Your task to perform on an android device: turn notification dots off Image 0: 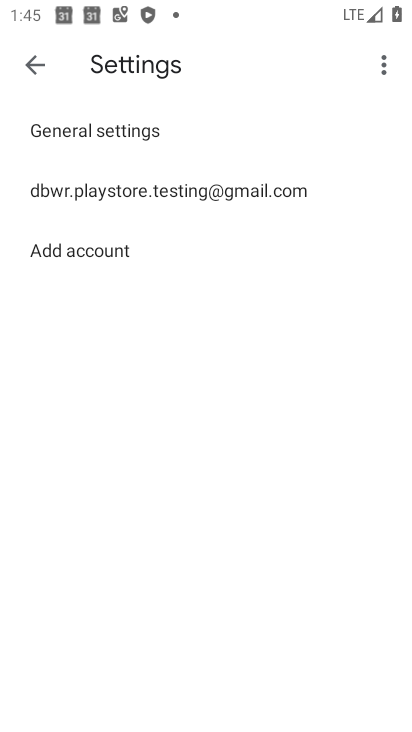
Step 0: press home button
Your task to perform on an android device: turn notification dots off Image 1: 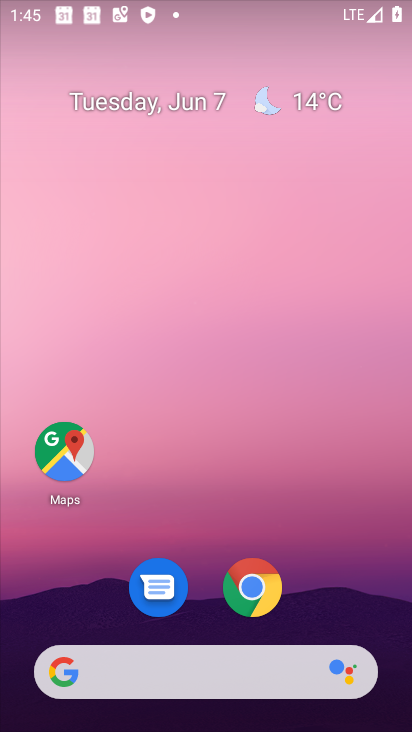
Step 1: drag from (247, 648) to (202, 210)
Your task to perform on an android device: turn notification dots off Image 2: 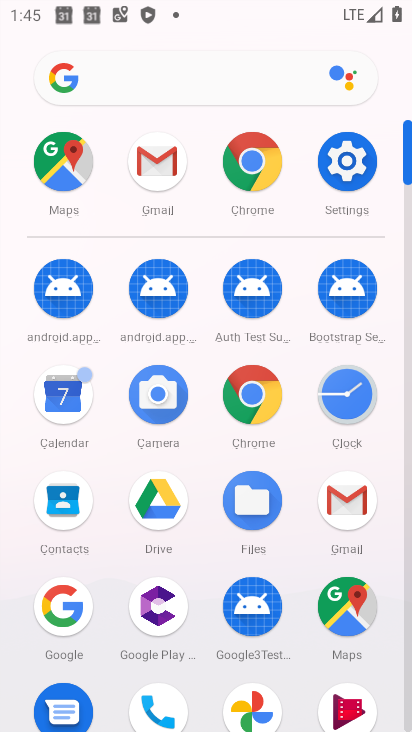
Step 2: click (353, 161)
Your task to perform on an android device: turn notification dots off Image 3: 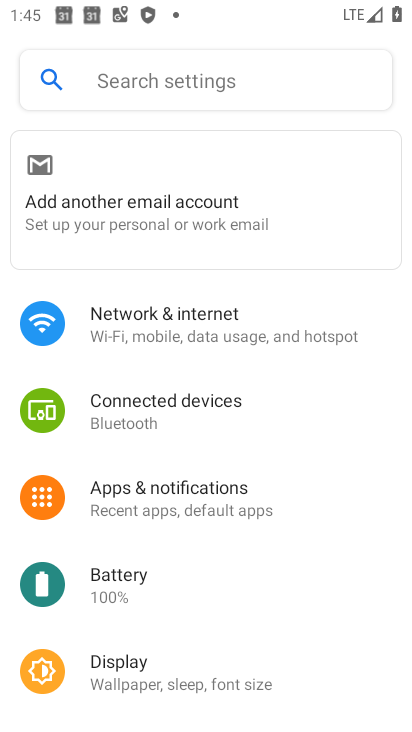
Step 3: click (294, 499)
Your task to perform on an android device: turn notification dots off Image 4: 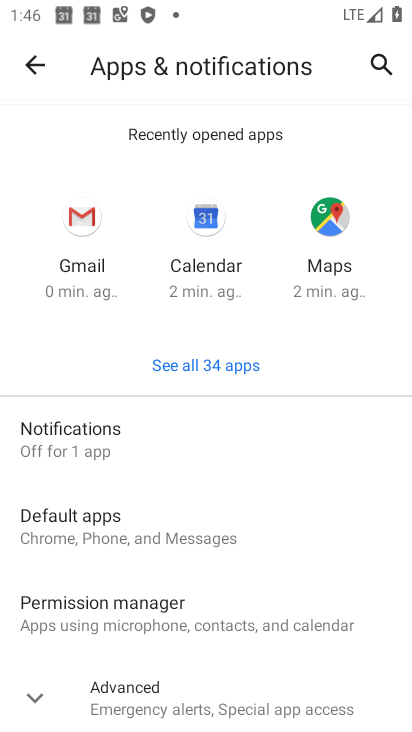
Step 4: click (197, 435)
Your task to perform on an android device: turn notification dots off Image 5: 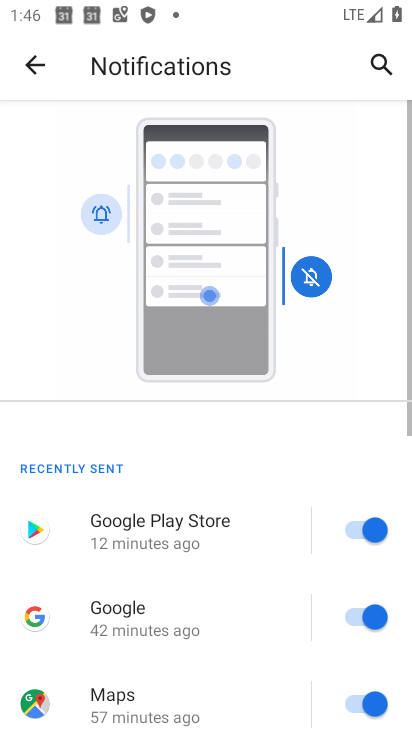
Step 5: drag from (202, 582) to (194, 151)
Your task to perform on an android device: turn notification dots off Image 6: 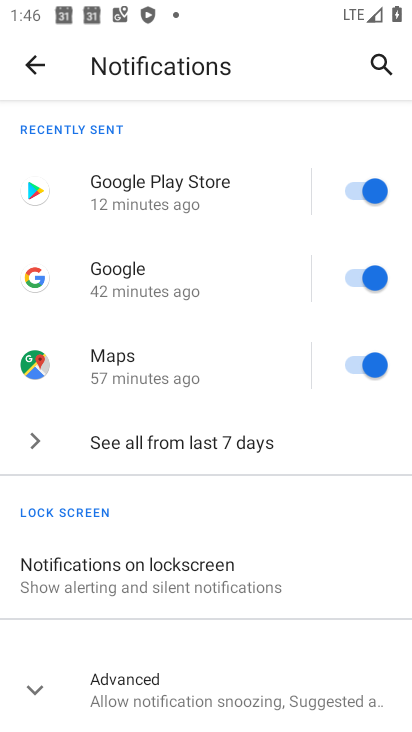
Step 6: click (165, 685)
Your task to perform on an android device: turn notification dots off Image 7: 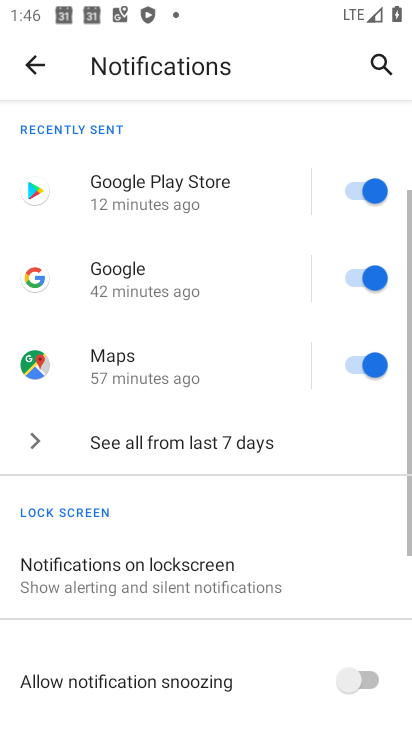
Step 7: drag from (170, 651) to (210, 265)
Your task to perform on an android device: turn notification dots off Image 8: 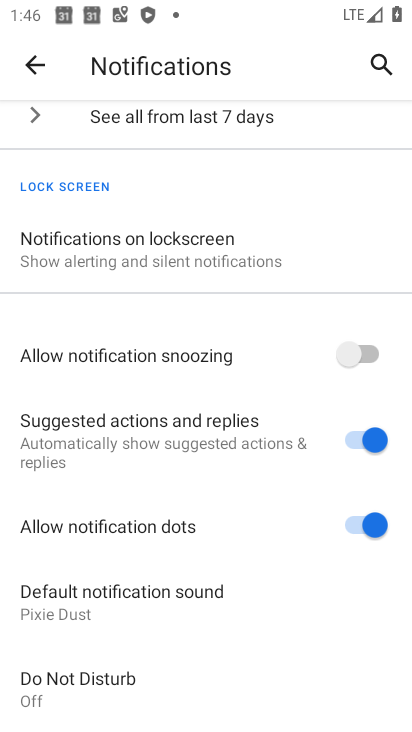
Step 8: click (331, 504)
Your task to perform on an android device: turn notification dots off Image 9: 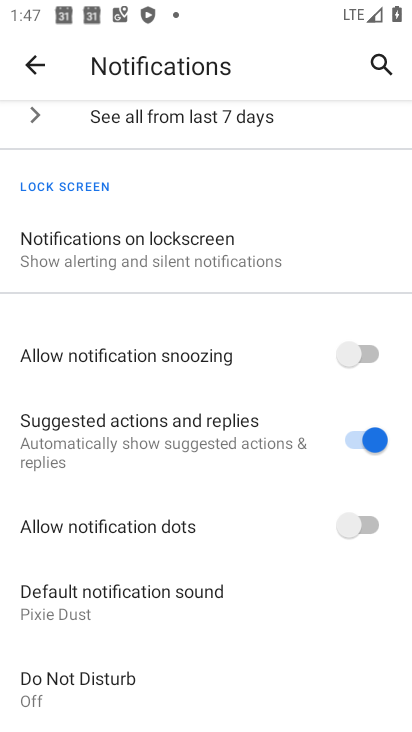
Step 9: task complete